Your task to perform on an android device: Empty the shopping cart on costco.com. Image 0: 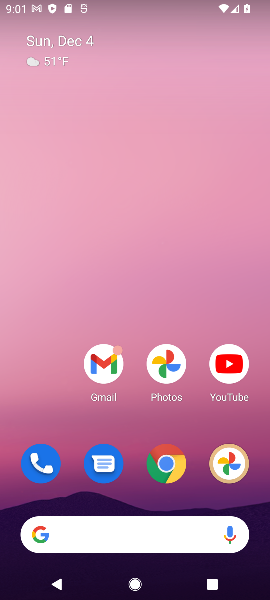
Step 0: click (115, 545)
Your task to perform on an android device: Empty the shopping cart on costco.com. Image 1: 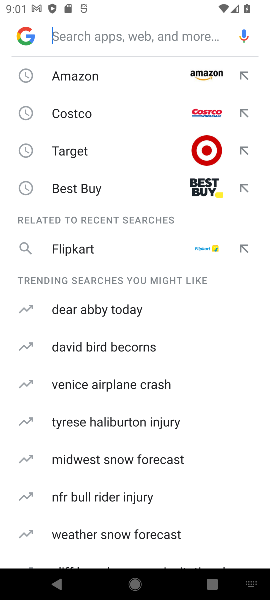
Step 1: type "costco.com"
Your task to perform on an android device: Empty the shopping cart on costco.com. Image 2: 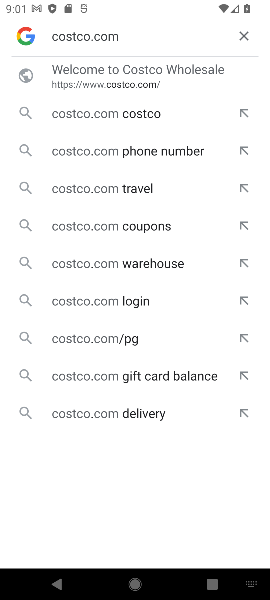
Step 2: click (121, 86)
Your task to perform on an android device: Empty the shopping cart on costco.com. Image 3: 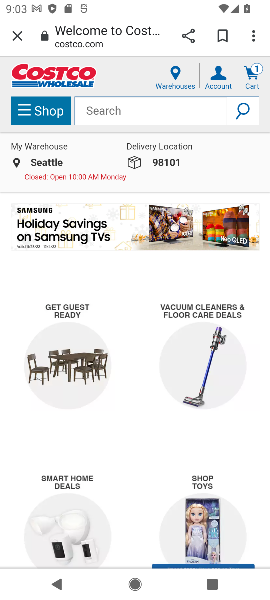
Step 3: task complete